Your task to perform on an android device: turn off location Image 0: 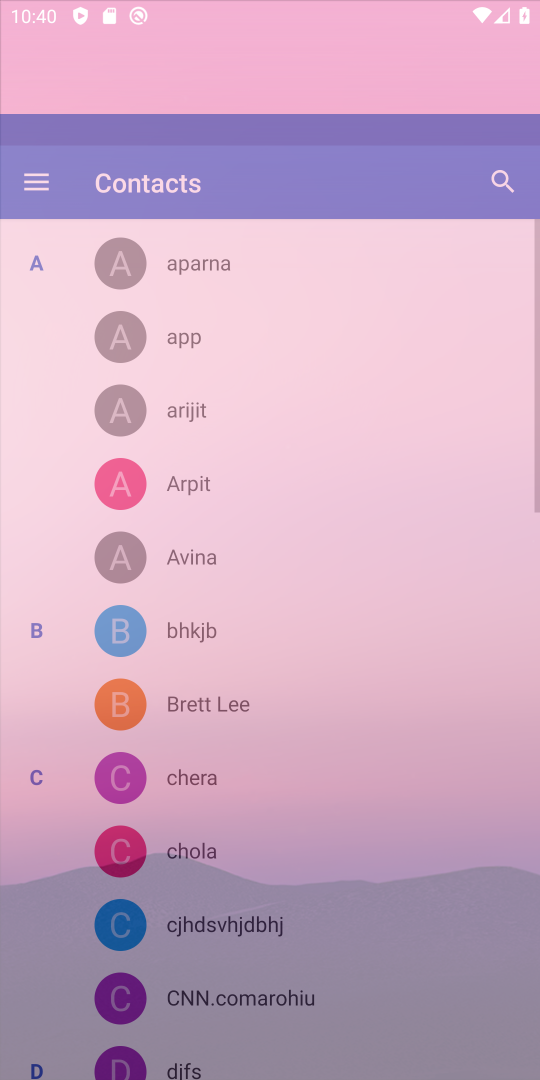
Step 0: drag from (247, 435) to (229, 128)
Your task to perform on an android device: turn off location Image 1: 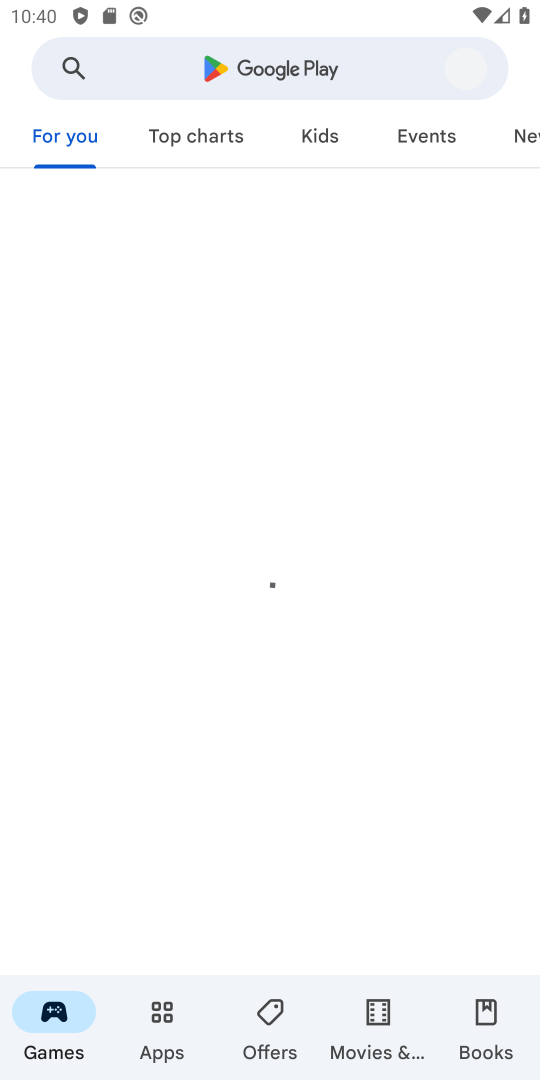
Step 1: press home button
Your task to perform on an android device: turn off location Image 2: 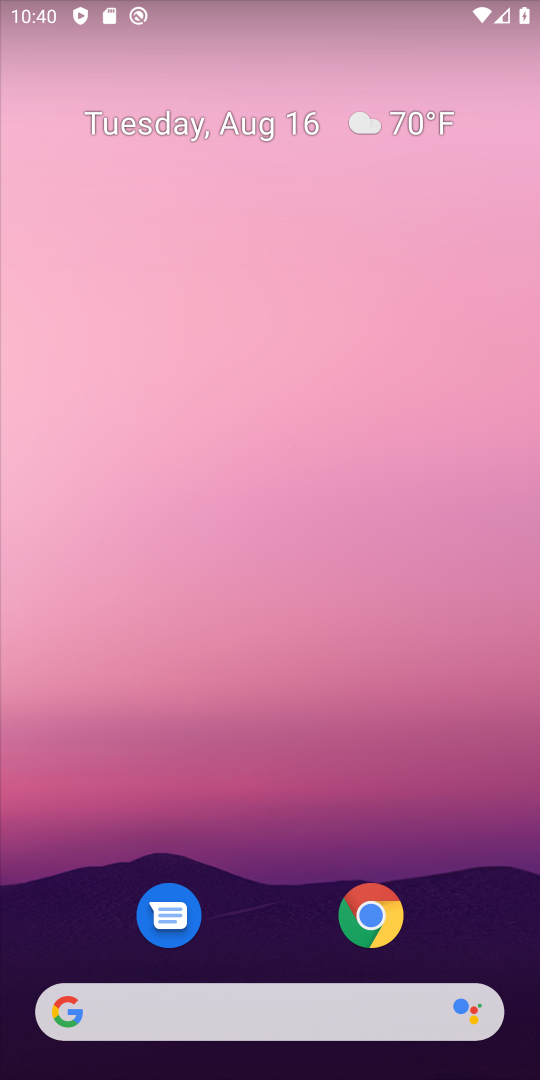
Step 2: drag from (255, 951) to (194, 228)
Your task to perform on an android device: turn off location Image 3: 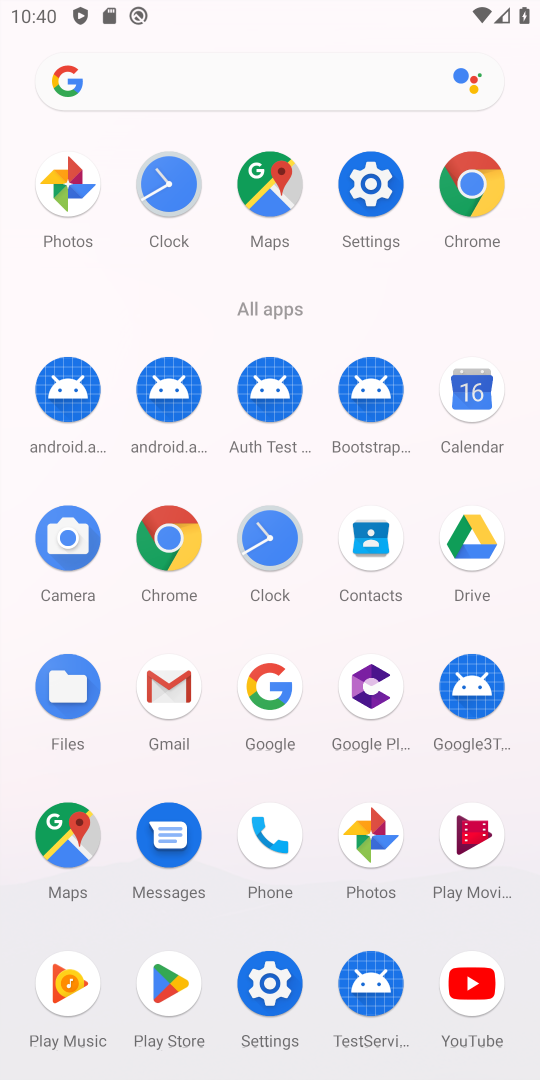
Step 3: click (348, 199)
Your task to perform on an android device: turn off location Image 4: 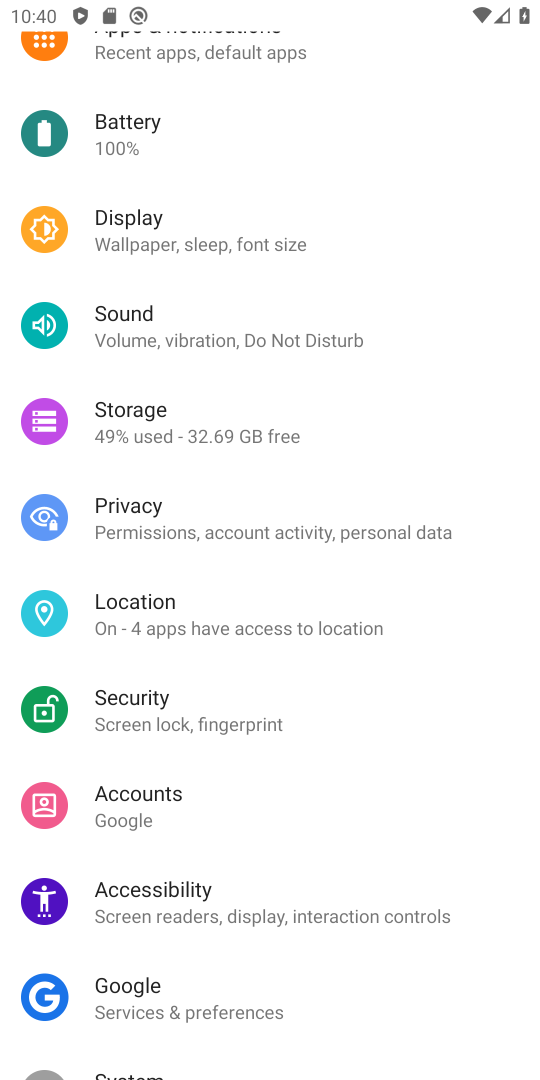
Step 4: click (240, 604)
Your task to perform on an android device: turn off location Image 5: 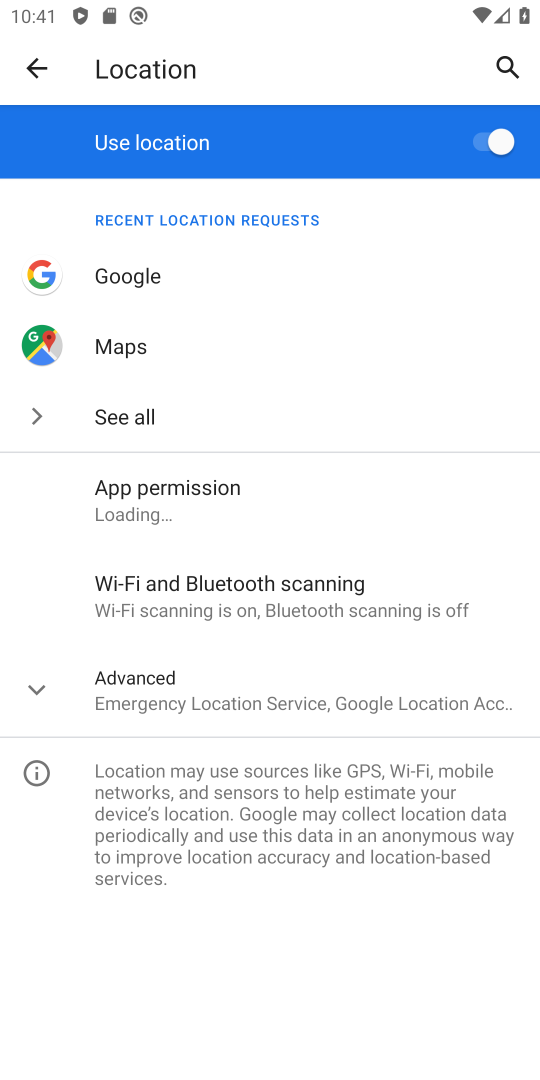
Step 5: click (480, 140)
Your task to perform on an android device: turn off location Image 6: 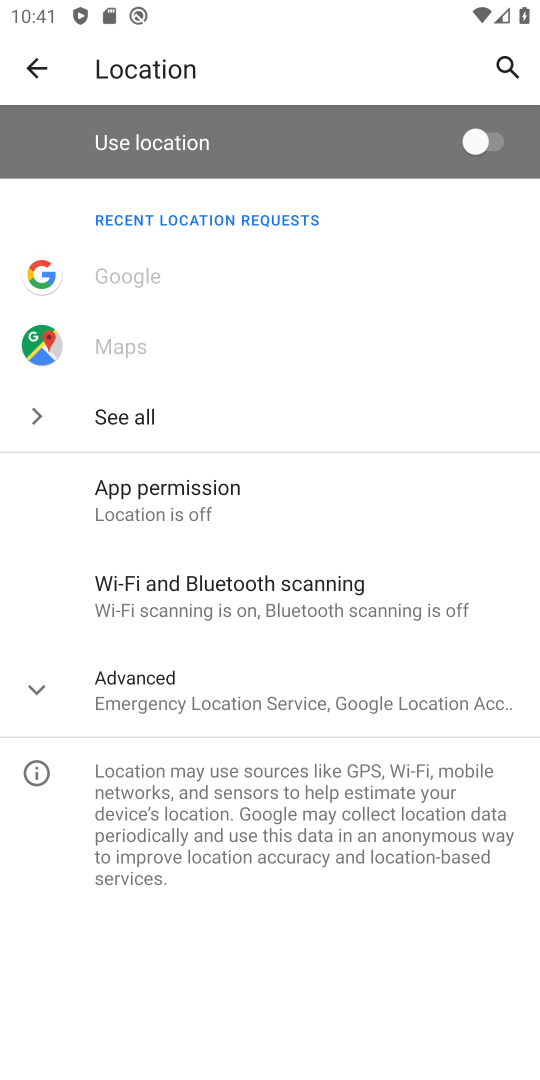
Step 6: task complete